Your task to perform on an android device: Show me recent news Image 0: 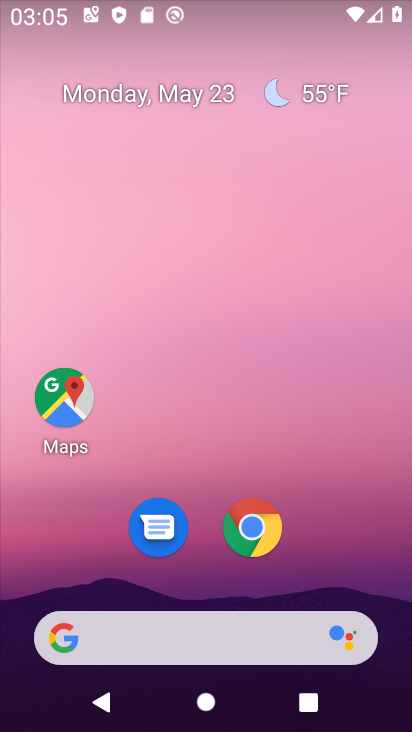
Step 0: drag from (370, 523) to (332, 37)
Your task to perform on an android device: Show me recent news Image 1: 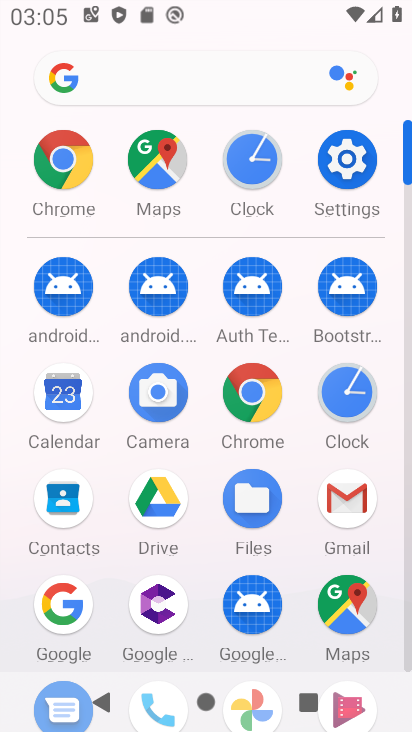
Step 1: drag from (19, 483) to (25, 209)
Your task to perform on an android device: Show me recent news Image 2: 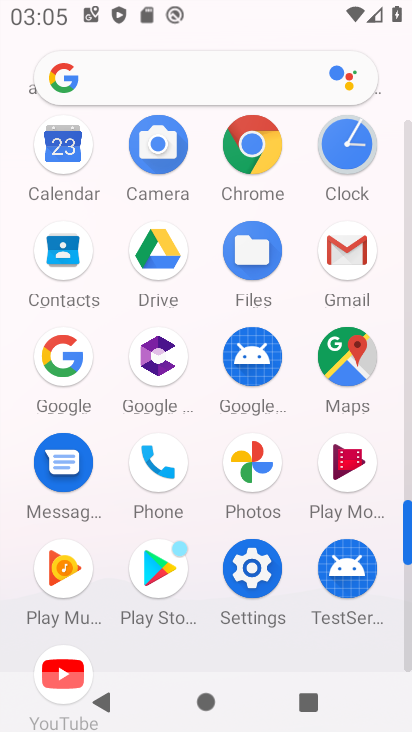
Step 2: click (253, 142)
Your task to perform on an android device: Show me recent news Image 3: 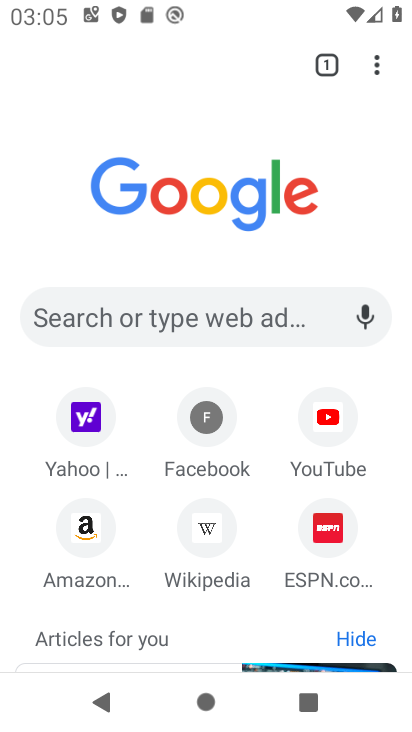
Step 3: click (144, 300)
Your task to perform on an android device: Show me recent news Image 4: 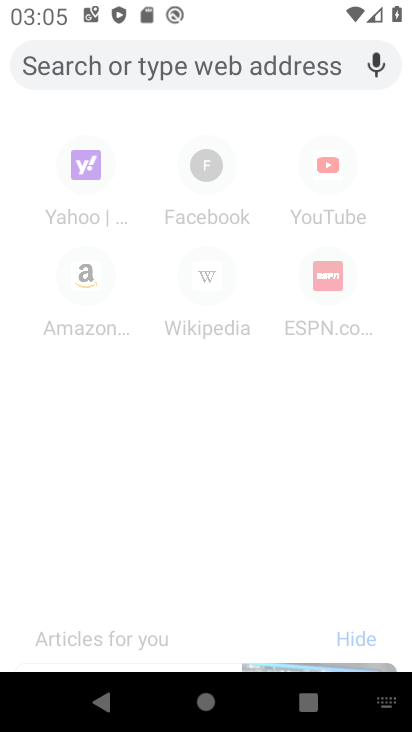
Step 4: type "Show me recent news"
Your task to perform on an android device: Show me recent news Image 5: 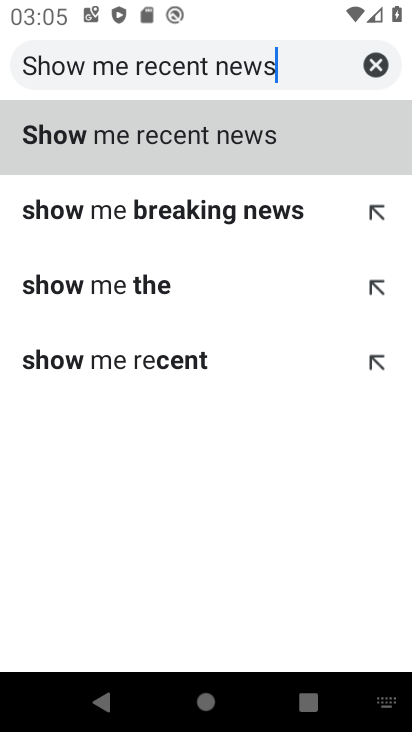
Step 5: type ""
Your task to perform on an android device: Show me recent news Image 6: 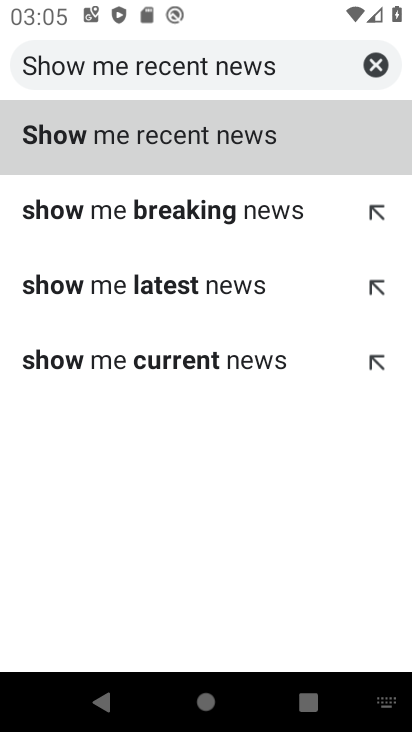
Step 6: click (184, 137)
Your task to perform on an android device: Show me recent news Image 7: 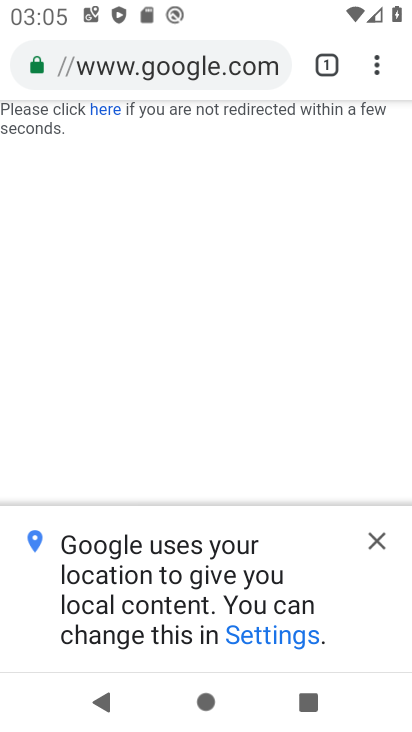
Step 7: click (375, 542)
Your task to perform on an android device: Show me recent news Image 8: 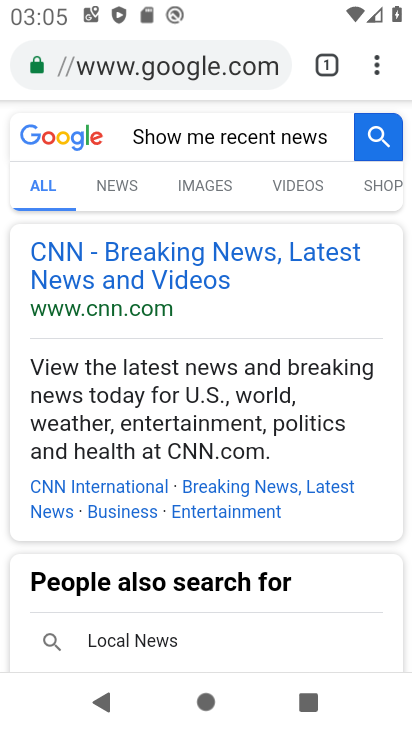
Step 8: click (116, 181)
Your task to perform on an android device: Show me recent news Image 9: 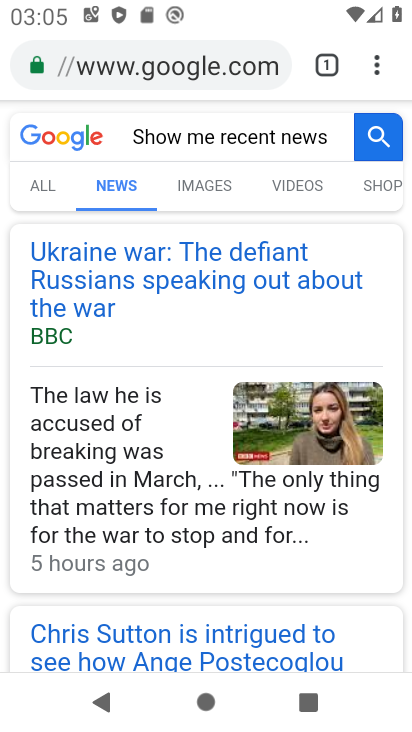
Step 9: task complete